Your task to perform on an android device: turn off location history Image 0: 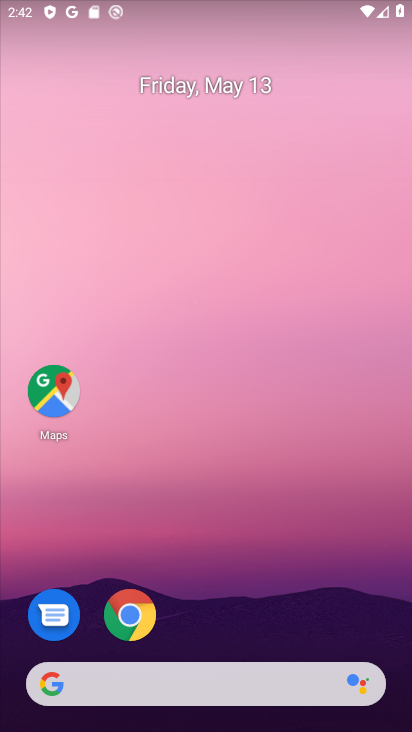
Step 0: click (64, 406)
Your task to perform on an android device: turn off location history Image 1: 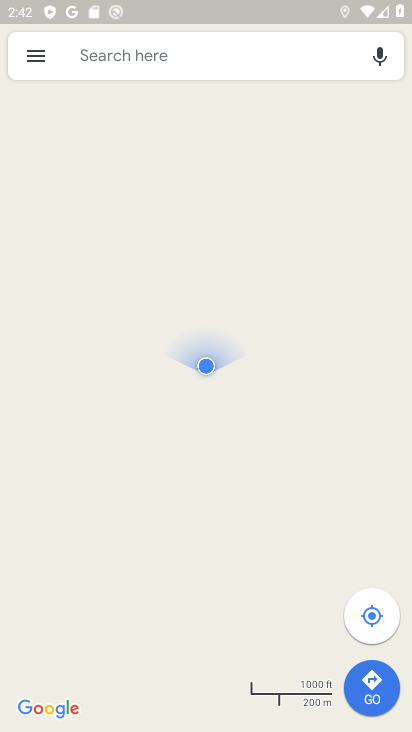
Step 1: click (45, 57)
Your task to perform on an android device: turn off location history Image 2: 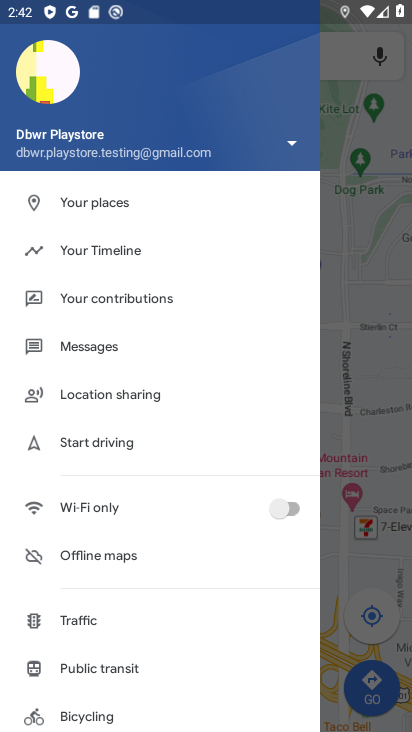
Step 2: click (100, 250)
Your task to perform on an android device: turn off location history Image 3: 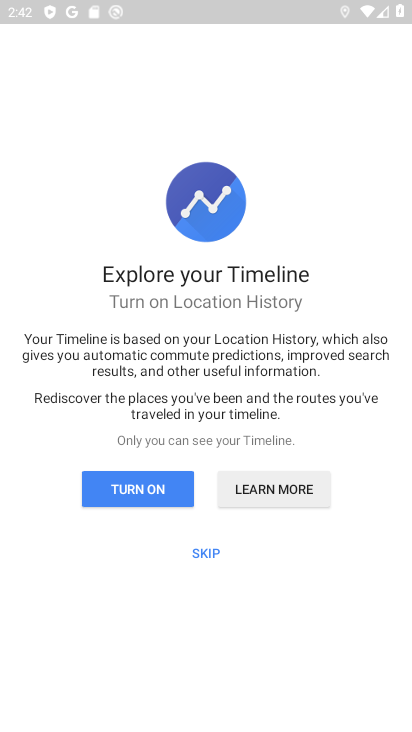
Step 3: click (213, 558)
Your task to perform on an android device: turn off location history Image 4: 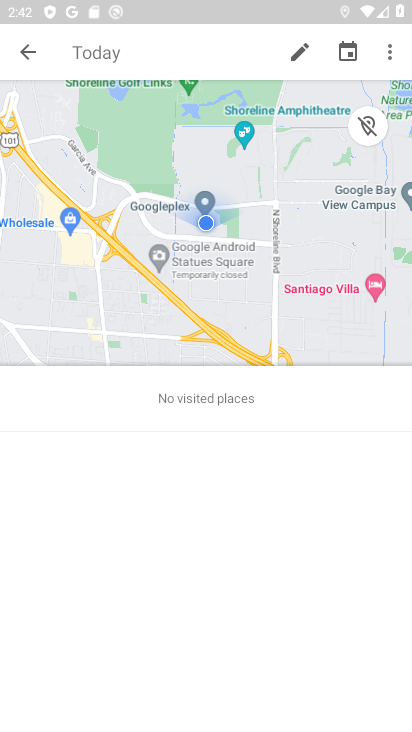
Step 4: click (399, 50)
Your task to perform on an android device: turn off location history Image 5: 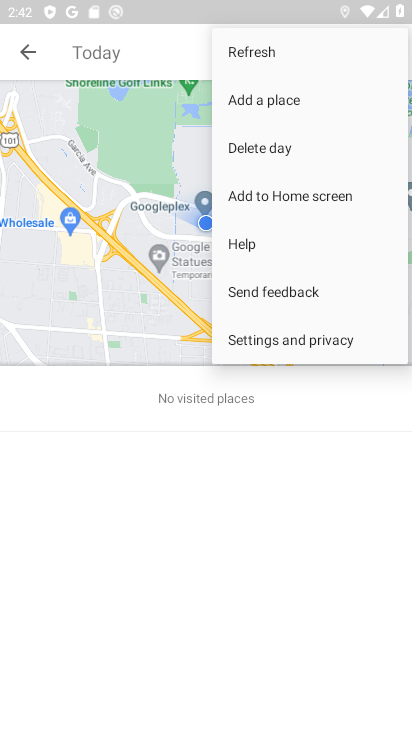
Step 5: click (270, 346)
Your task to perform on an android device: turn off location history Image 6: 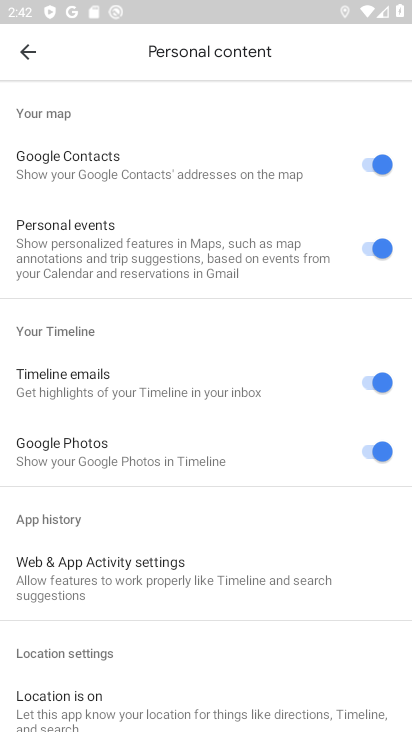
Step 6: drag from (193, 522) to (284, 318)
Your task to perform on an android device: turn off location history Image 7: 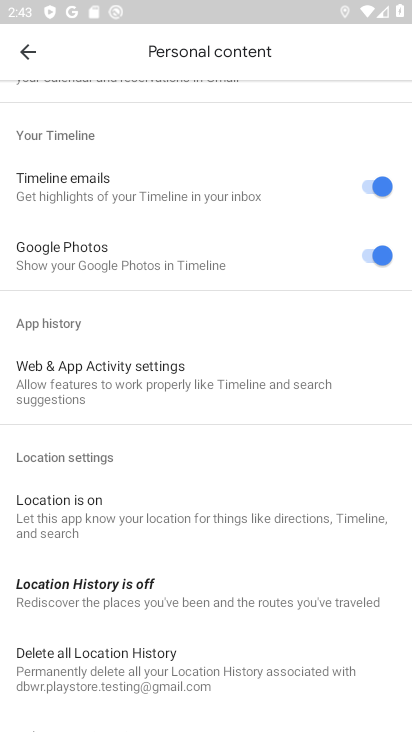
Step 7: click (180, 604)
Your task to perform on an android device: turn off location history Image 8: 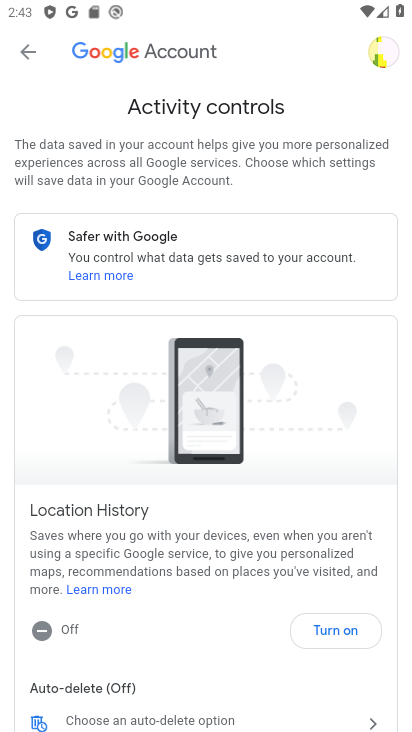
Step 8: task complete